Your task to perform on an android device: Open wifi settings Image 0: 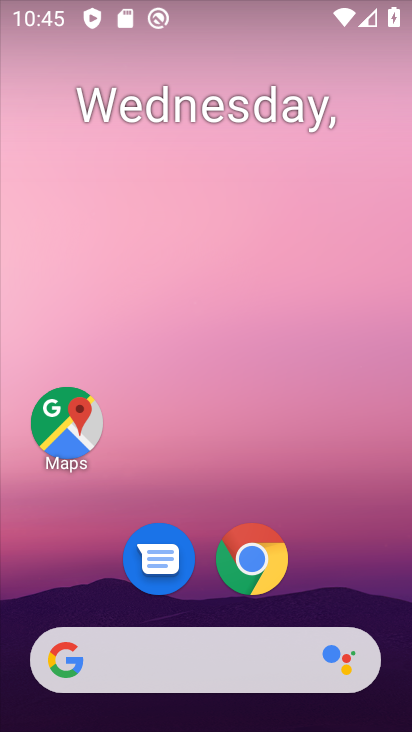
Step 0: drag from (205, 608) to (298, 49)
Your task to perform on an android device: Open wifi settings Image 1: 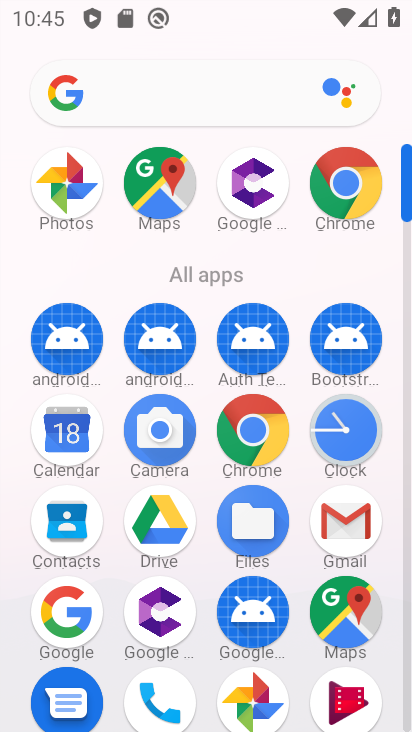
Step 1: drag from (193, 623) to (272, 278)
Your task to perform on an android device: Open wifi settings Image 2: 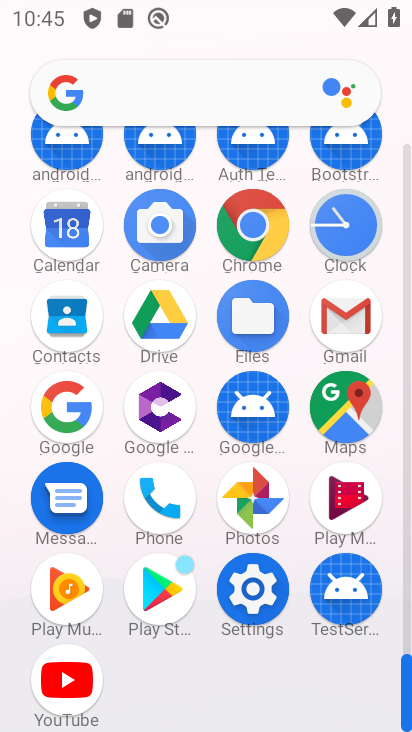
Step 2: click (255, 579)
Your task to perform on an android device: Open wifi settings Image 3: 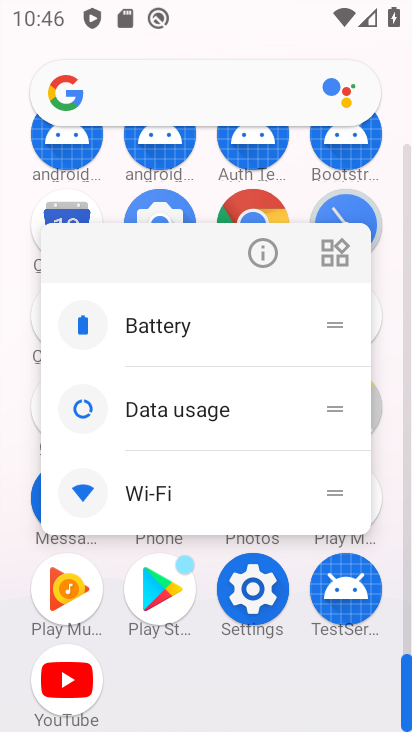
Step 3: click (260, 248)
Your task to perform on an android device: Open wifi settings Image 4: 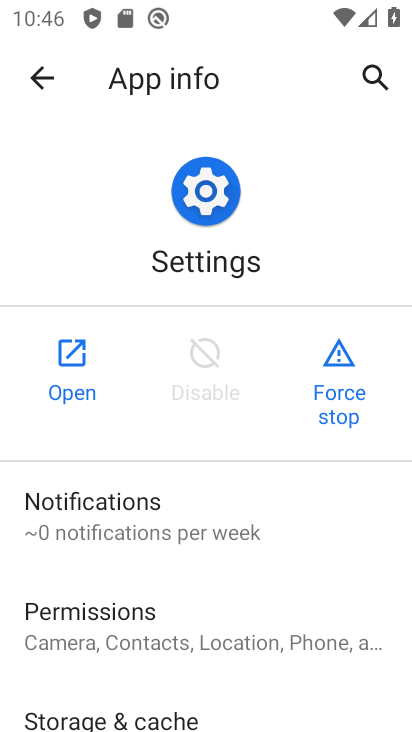
Step 4: click (76, 369)
Your task to perform on an android device: Open wifi settings Image 5: 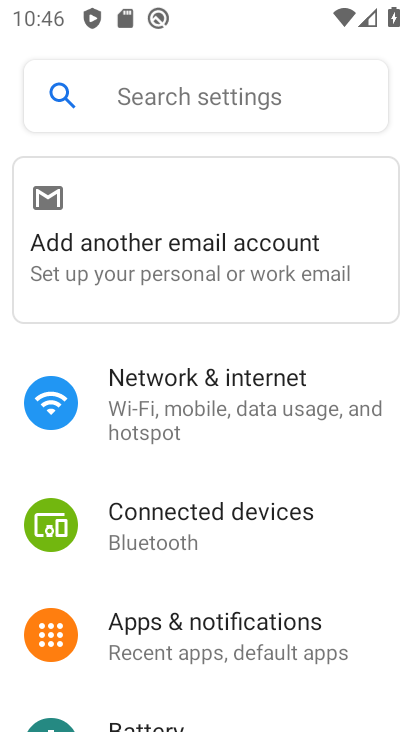
Step 5: click (166, 400)
Your task to perform on an android device: Open wifi settings Image 6: 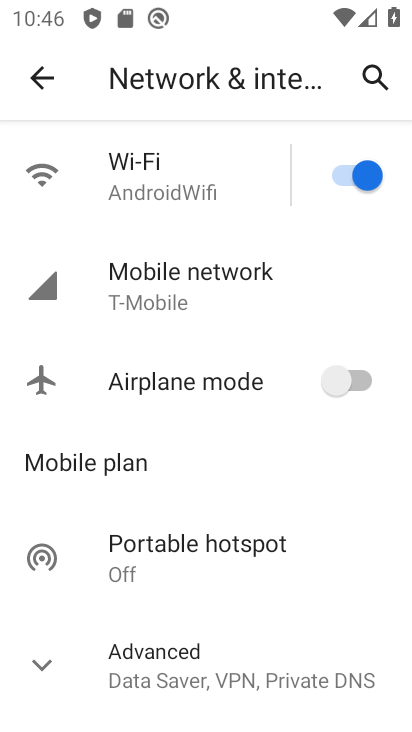
Step 6: click (206, 180)
Your task to perform on an android device: Open wifi settings Image 7: 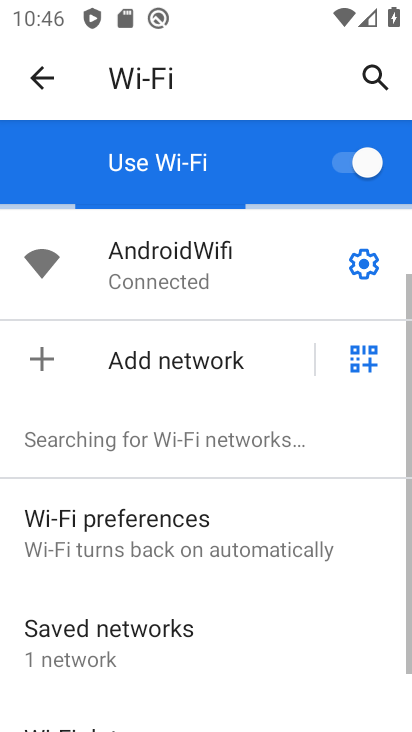
Step 7: task complete